Your task to perform on an android device: Open Yahoo.com Image 0: 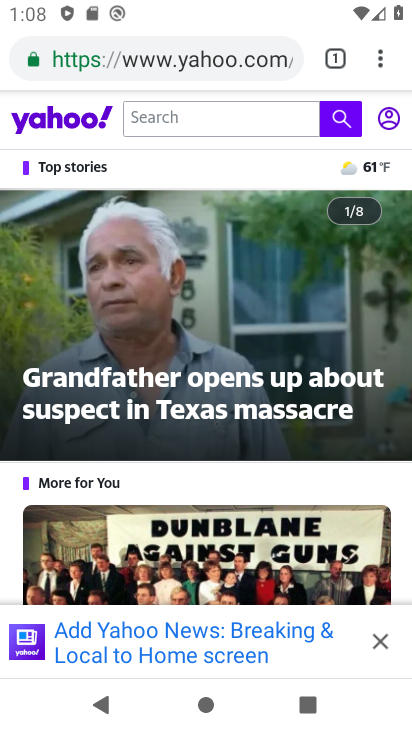
Step 0: task complete